Your task to perform on an android device: open chrome and create a bookmark for the current page Image 0: 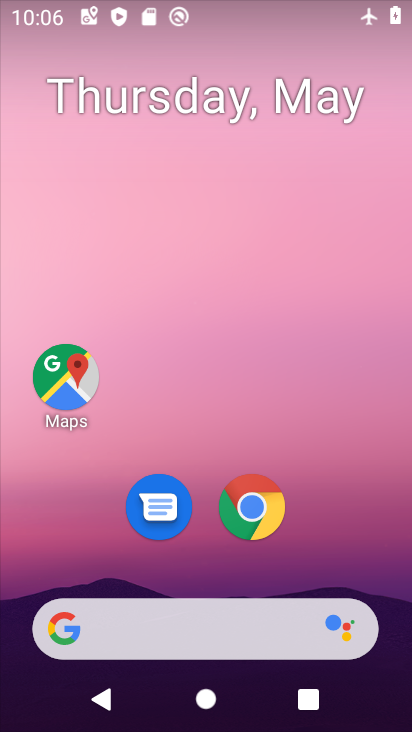
Step 0: click (273, 509)
Your task to perform on an android device: open chrome and create a bookmark for the current page Image 1: 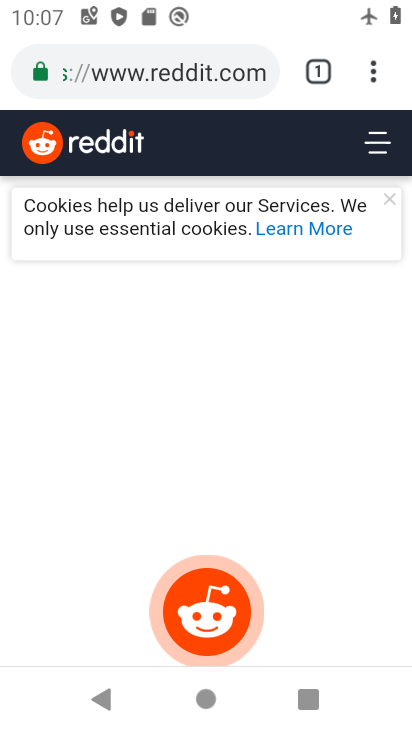
Step 1: drag from (212, 73) to (167, 254)
Your task to perform on an android device: open chrome and create a bookmark for the current page Image 2: 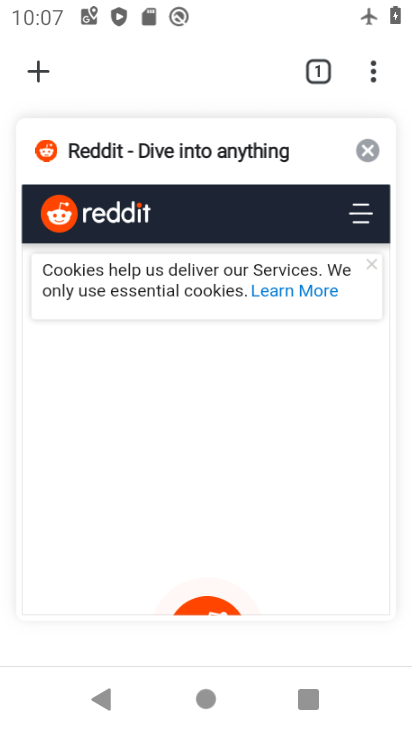
Step 2: click (168, 317)
Your task to perform on an android device: open chrome and create a bookmark for the current page Image 3: 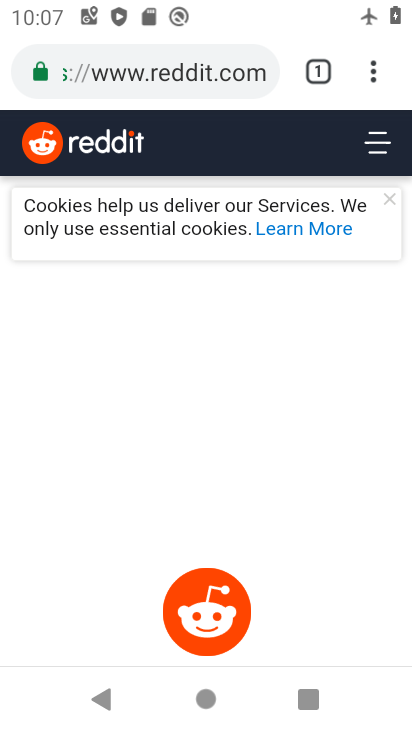
Step 3: click (376, 76)
Your task to perform on an android device: open chrome and create a bookmark for the current page Image 4: 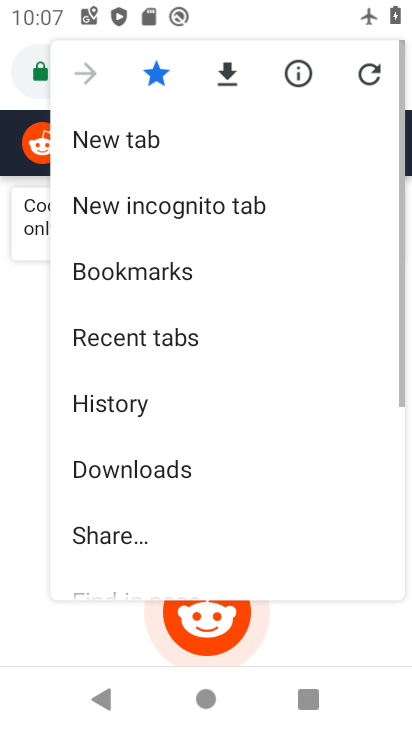
Step 4: click (384, 106)
Your task to perform on an android device: open chrome and create a bookmark for the current page Image 5: 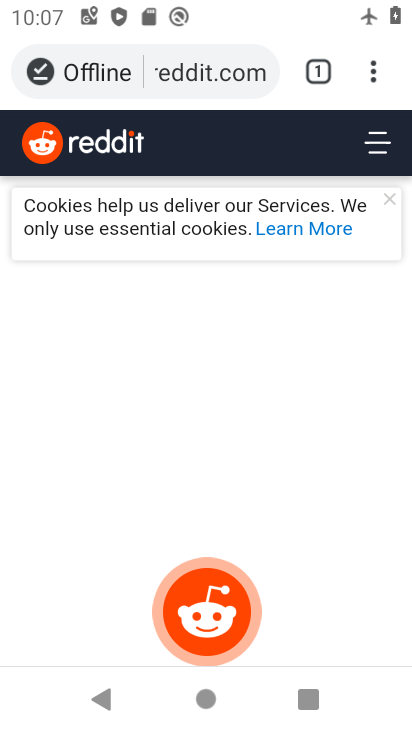
Step 5: task complete